Your task to perform on an android device: Open calendar and show me the third week of next month Image 0: 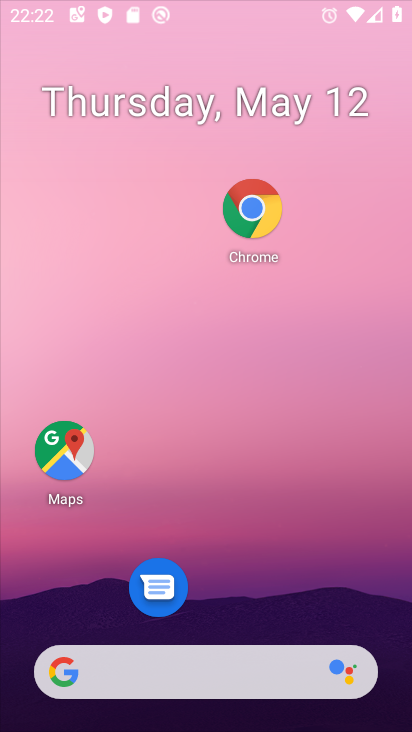
Step 0: drag from (267, 614) to (309, 225)
Your task to perform on an android device: Open calendar and show me the third week of next month Image 1: 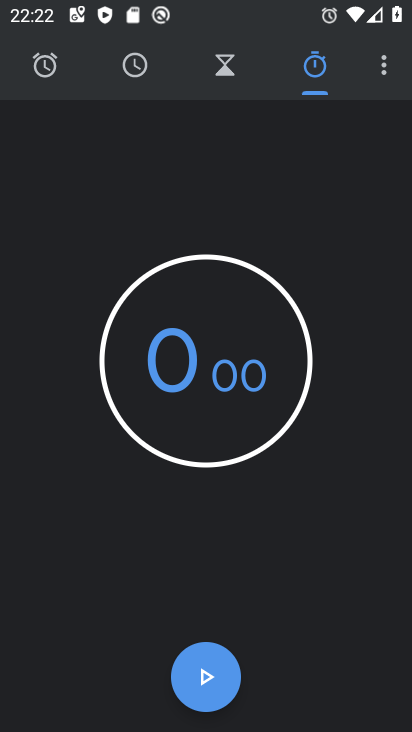
Step 1: press home button
Your task to perform on an android device: Open calendar and show me the third week of next month Image 2: 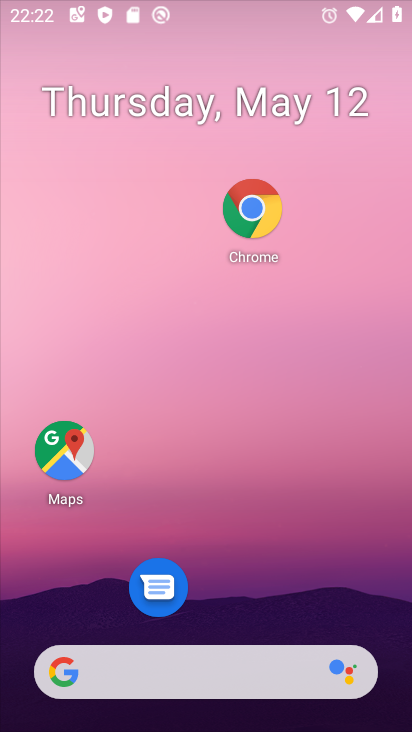
Step 2: drag from (298, 567) to (329, 200)
Your task to perform on an android device: Open calendar and show me the third week of next month Image 3: 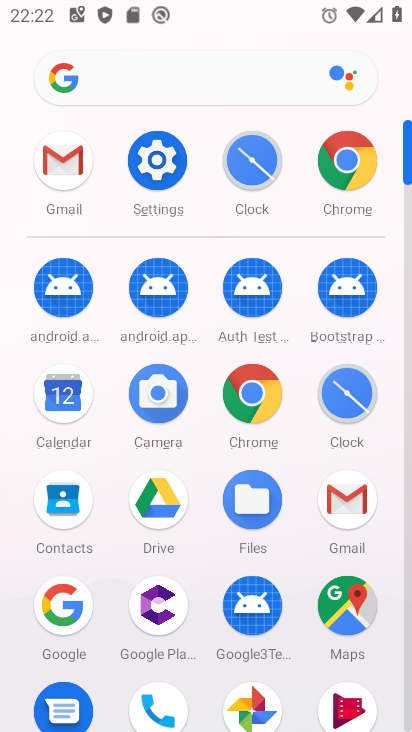
Step 3: click (55, 400)
Your task to perform on an android device: Open calendar and show me the third week of next month Image 4: 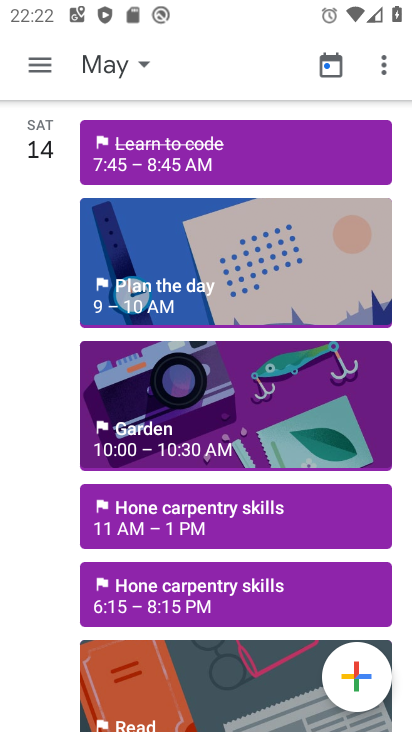
Step 4: click (40, 65)
Your task to perform on an android device: Open calendar and show me the third week of next month Image 5: 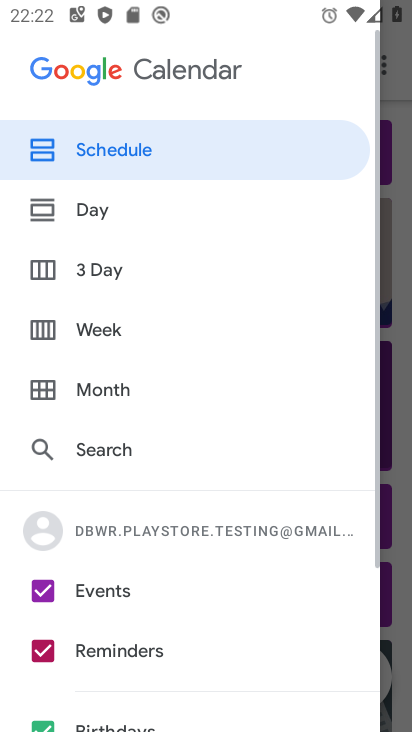
Step 5: click (96, 394)
Your task to perform on an android device: Open calendar and show me the third week of next month Image 6: 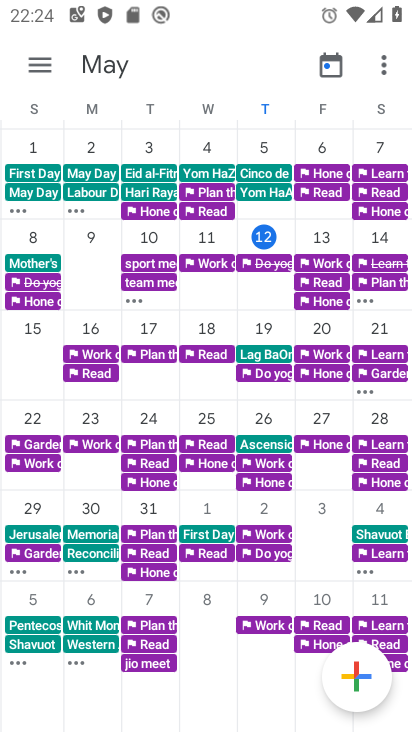
Step 6: task complete